Your task to perform on an android device: Turn on the flashlight Image 0: 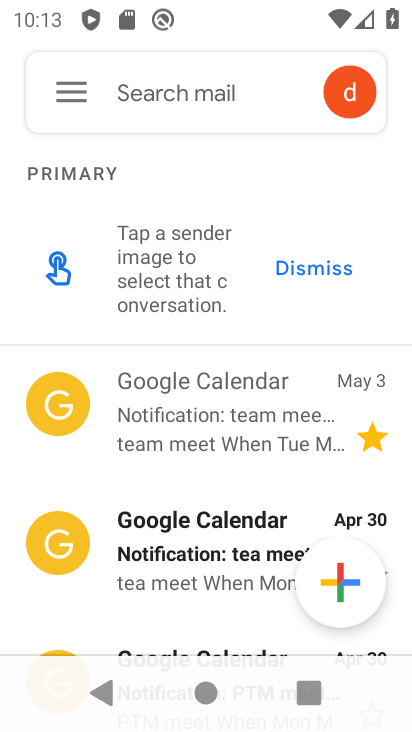
Step 0: press home button
Your task to perform on an android device: Turn on the flashlight Image 1: 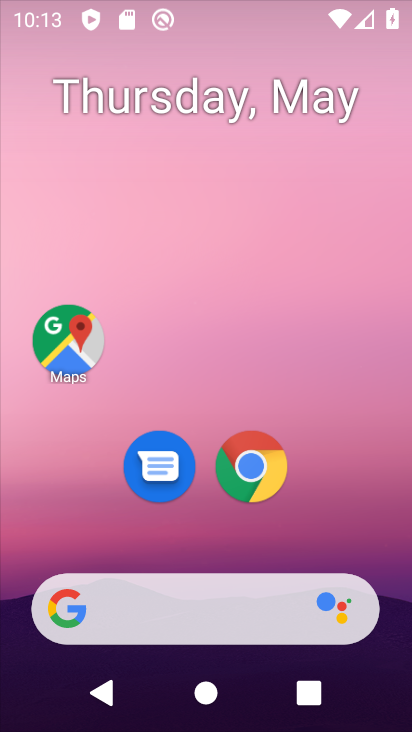
Step 1: drag from (230, 6) to (223, 585)
Your task to perform on an android device: Turn on the flashlight Image 2: 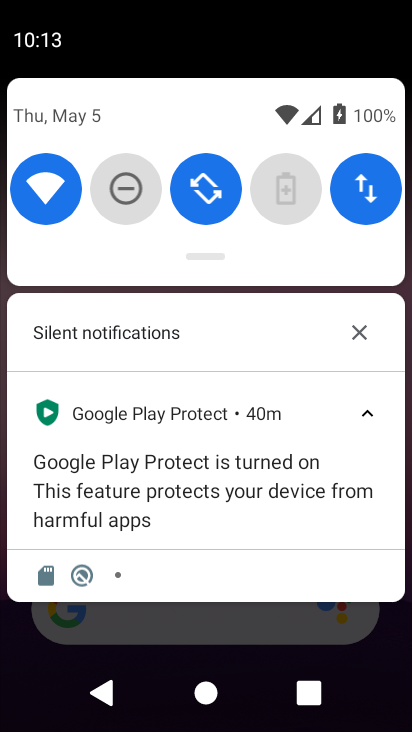
Step 2: drag from (306, 250) to (325, 657)
Your task to perform on an android device: Turn on the flashlight Image 3: 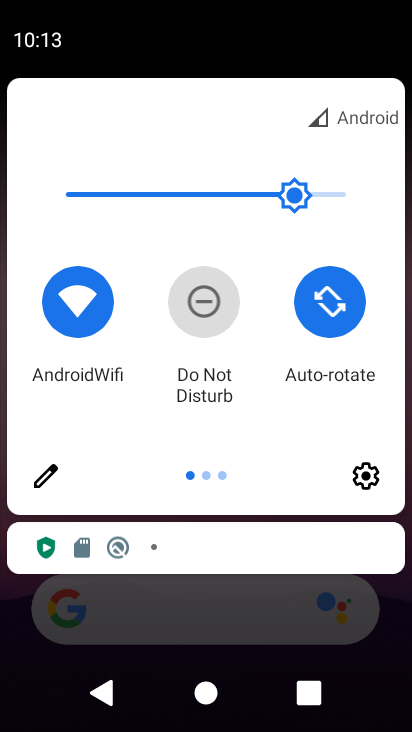
Step 3: drag from (345, 388) to (142, 348)
Your task to perform on an android device: Turn on the flashlight Image 4: 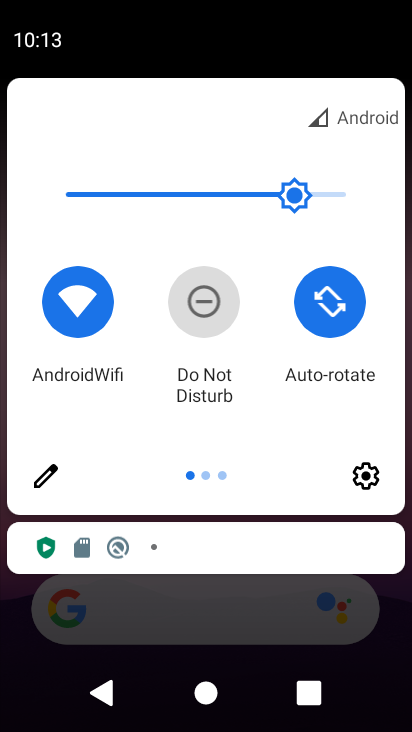
Step 4: drag from (374, 362) to (89, 354)
Your task to perform on an android device: Turn on the flashlight Image 5: 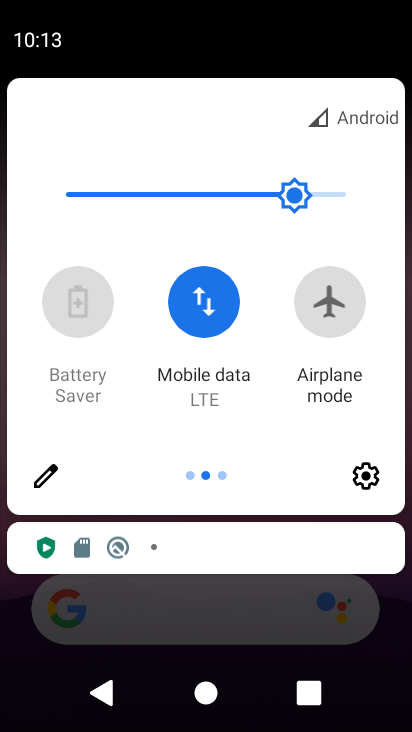
Step 5: drag from (352, 348) to (44, 363)
Your task to perform on an android device: Turn on the flashlight Image 6: 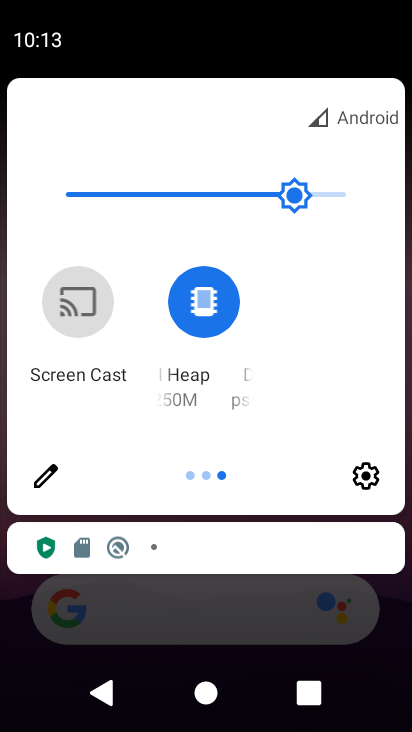
Step 6: click (372, 467)
Your task to perform on an android device: Turn on the flashlight Image 7: 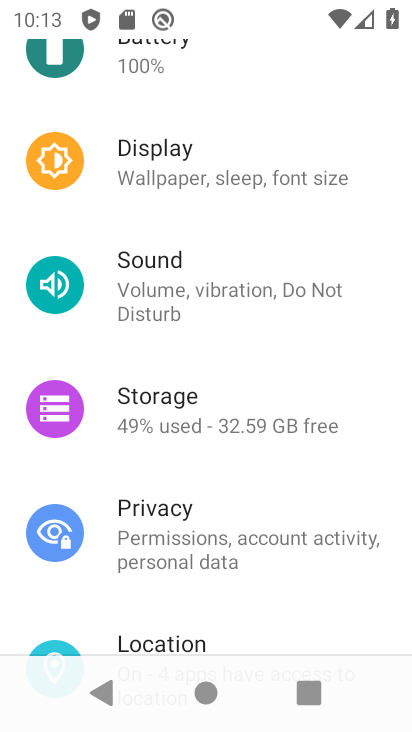
Step 7: click (193, 174)
Your task to perform on an android device: Turn on the flashlight Image 8: 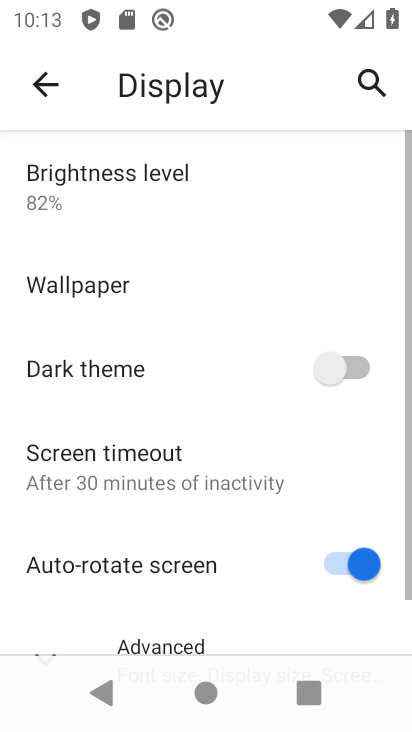
Step 8: task complete